Your task to perform on an android device: turn on the 24-hour format for clock Image 0: 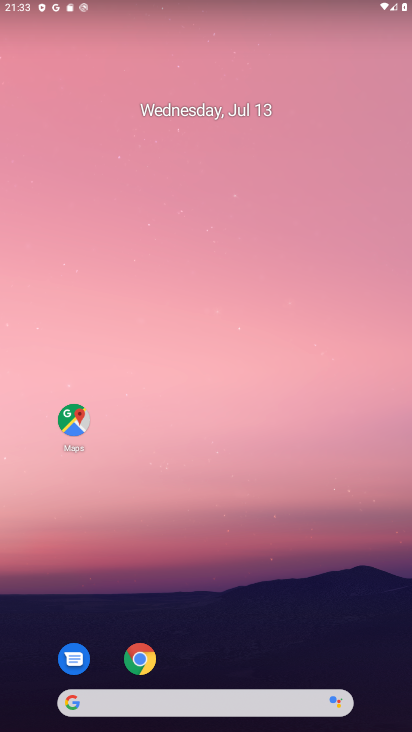
Step 0: drag from (254, 630) to (238, 163)
Your task to perform on an android device: turn on the 24-hour format for clock Image 1: 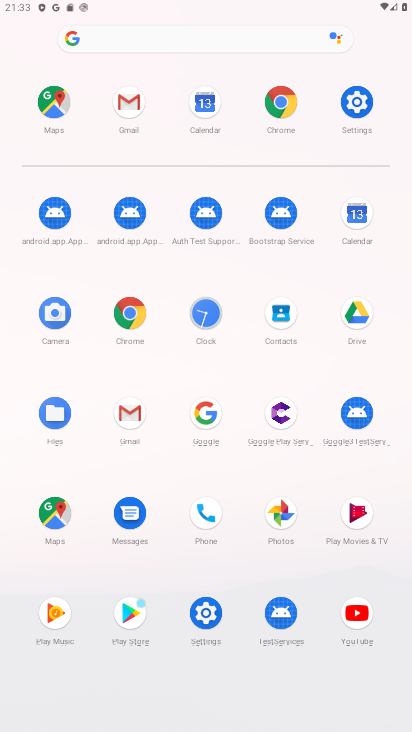
Step 1: click (191, 307)
Your task to perform on an android device: turn on the 24-hour format for clock Image 2: 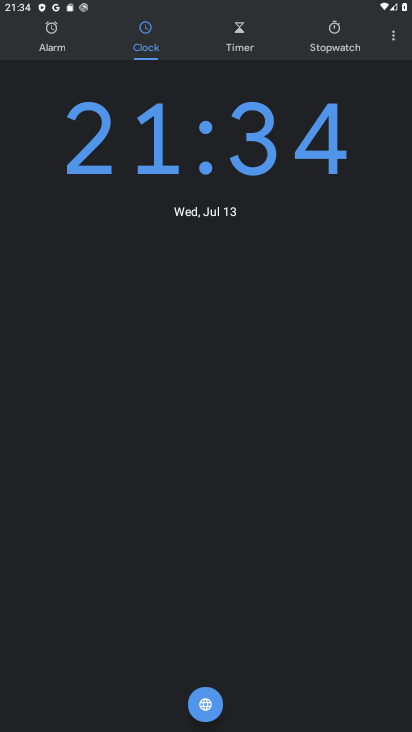
Step 2: click (386, 39)
Your task to perform on an android device: turn on the 24-hour format for clock Image 3: 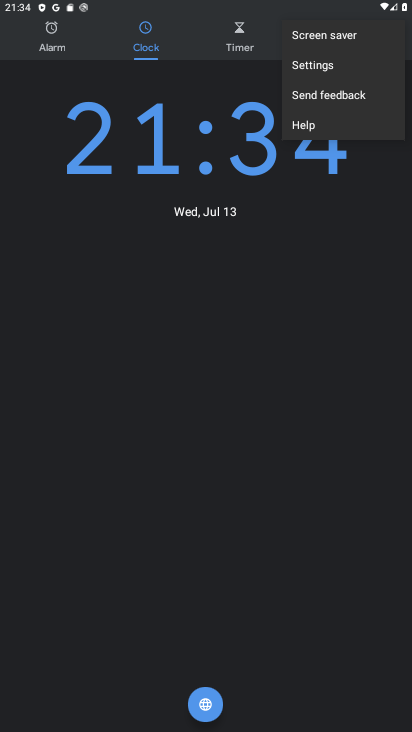
Step 3: click (349, 56)
Your task to perform on an android device: turn on the 24-hour format for clock Image 4: 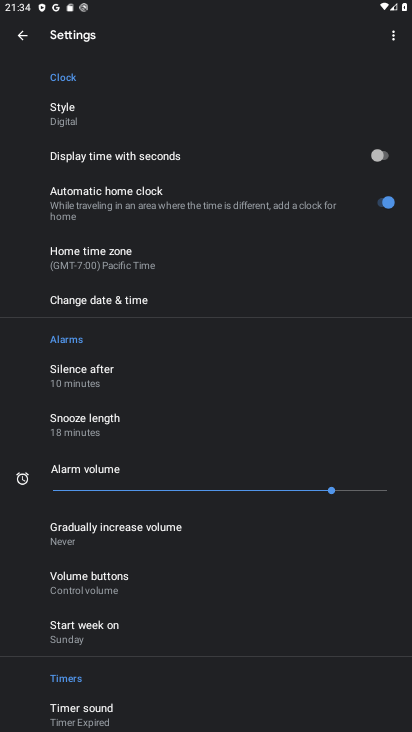
Step 4: click (168, 289)
Your task to perform on an android device: turn on the 24-hour format for clock Image 5: 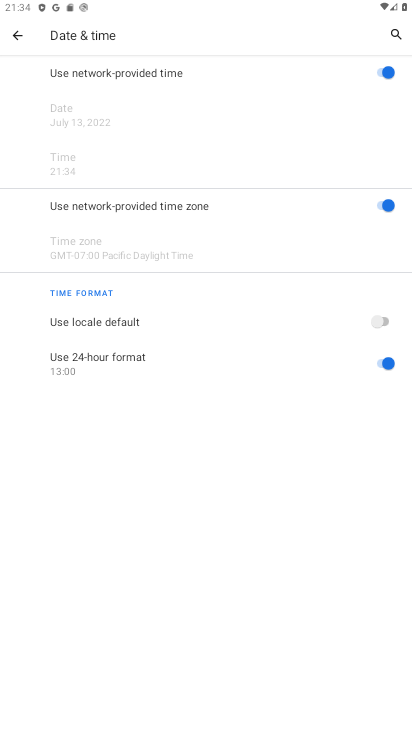
Step 5: task complete